Your task to perform on an android device: See recent photos Image 0: 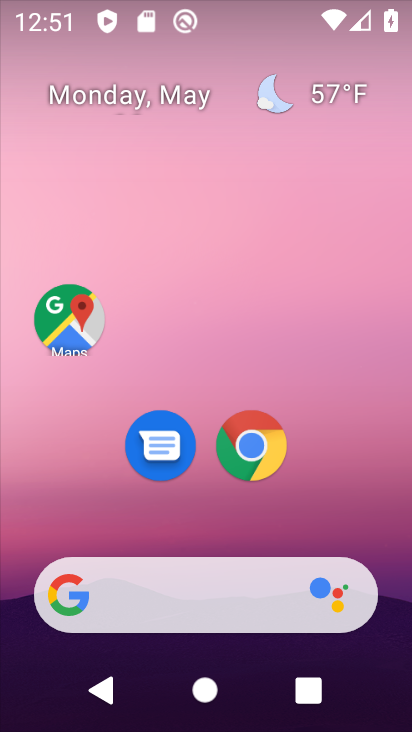
Step 0: drag from (382, 639) to (269, 117)
Your task to perform on an android device: See recent photos Image 1: 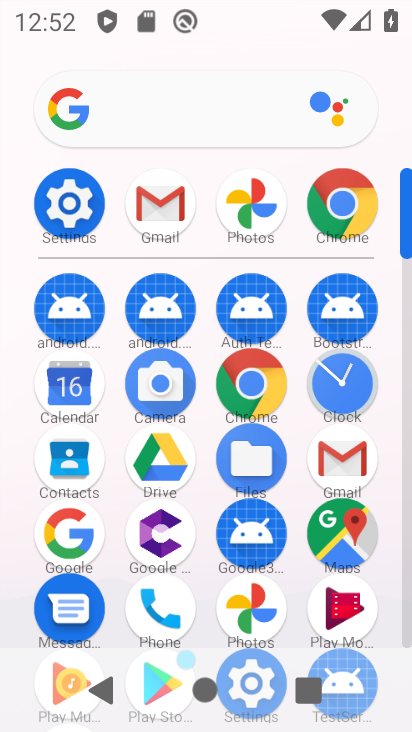
Step 1: click (251, 600)
Your task to perform on an android device: See recent photos Image 2: 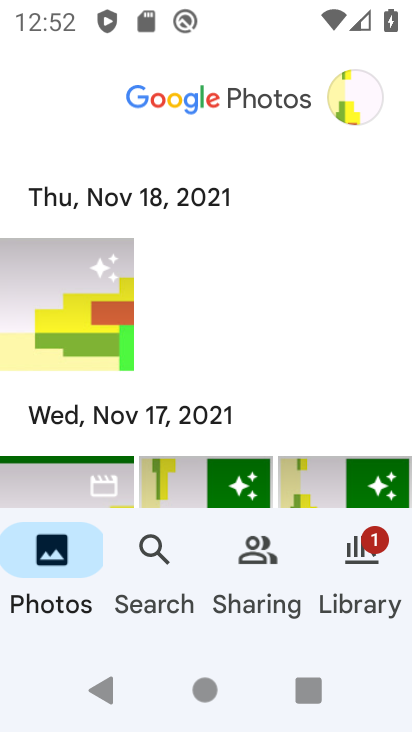
Step 2: drag from (61, 483) to (91, 199)
Your task to perform on an android device: See recent photos Image 3: 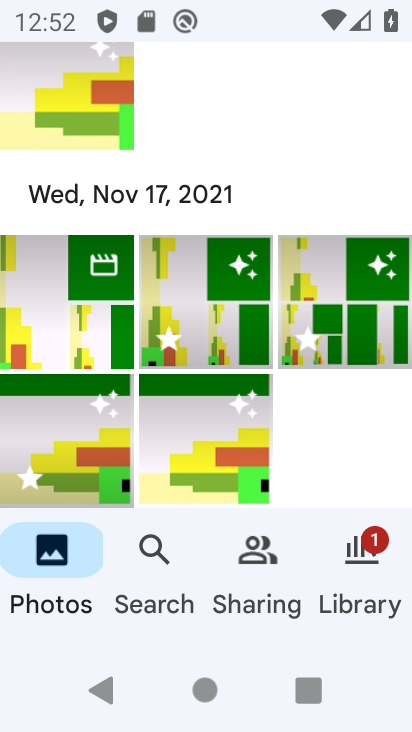
Step 3: click (90, 328)
Your task to perform on an android device: See recent photos Image 4: 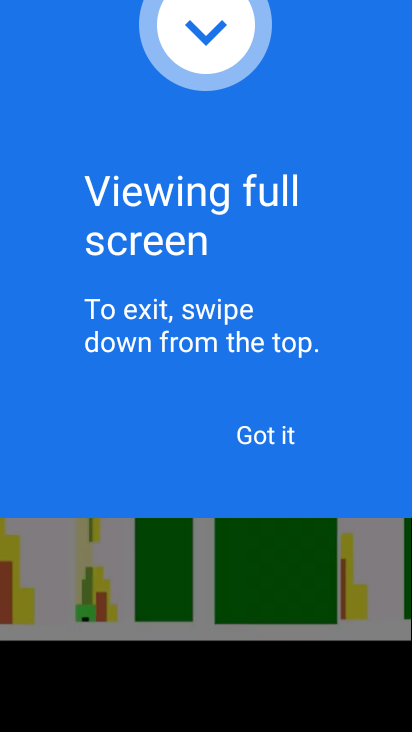
Step 4: task complete